Your task to perform on an android device: Open the Play Movies app and select the watchlist tab. Image 0: 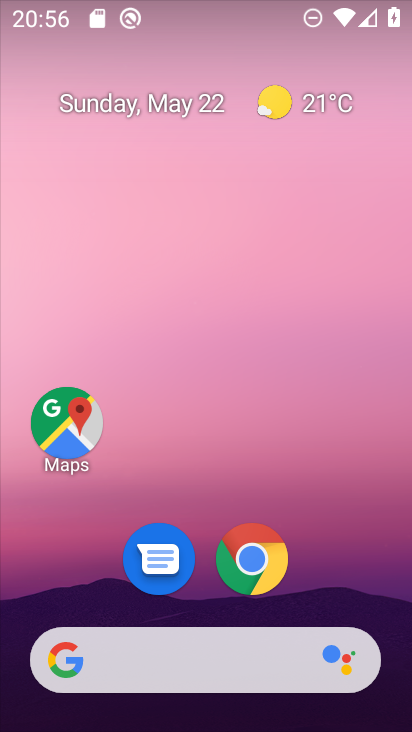
Step 0: press home button
Your task to perform on an android device: Open the Play Movies app and select the watchlist tab. Image 1: 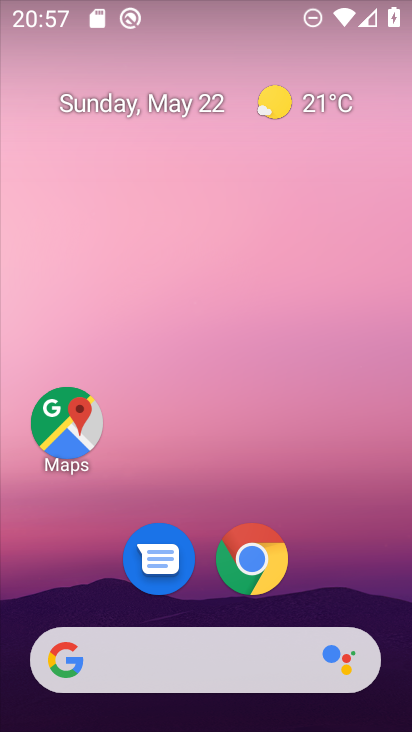
Step 1: drag from (211, 710) to (243, 208)
Your task to perform on an android device: Open the Play Movies app and select the watchlist tab. Image 2: 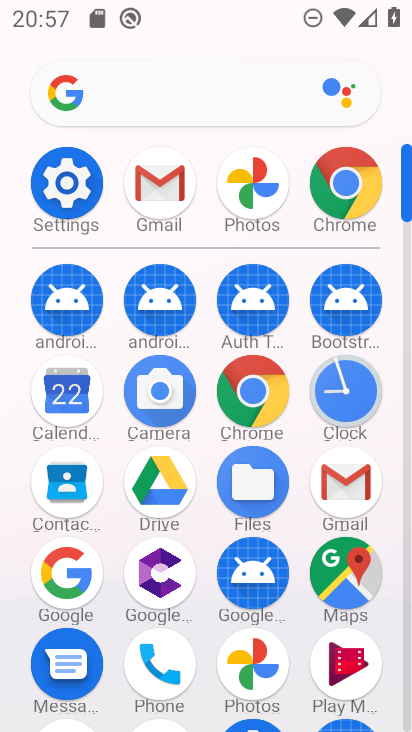
Step 2: click (361, 648)
Your task to perform on an android device: Open the Play Movies app and select the watchlist tab. Image 3: 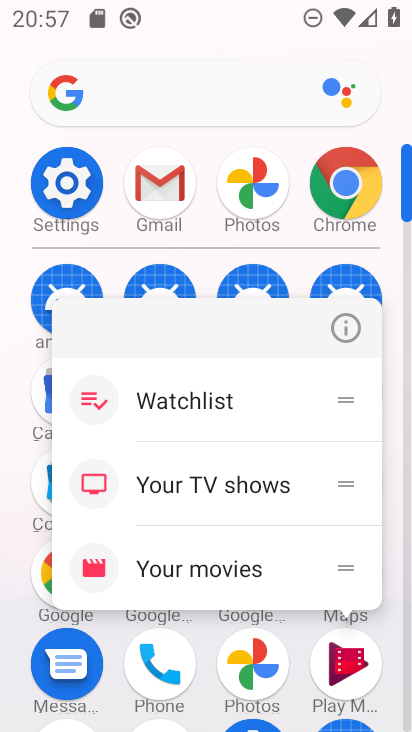
Step 3: click (350, 650)
Your task to perform on an android device: Open the Play Movies app and select the watchlist tab. Image 4: 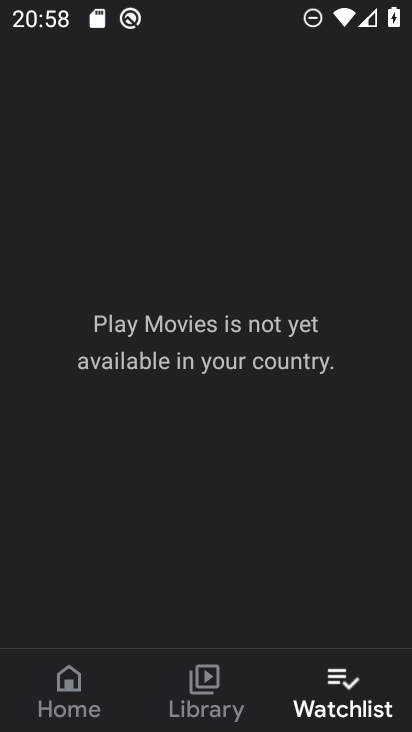
Step 4: task complete